Your task to perform on an android device: Open internet settings Image 0: 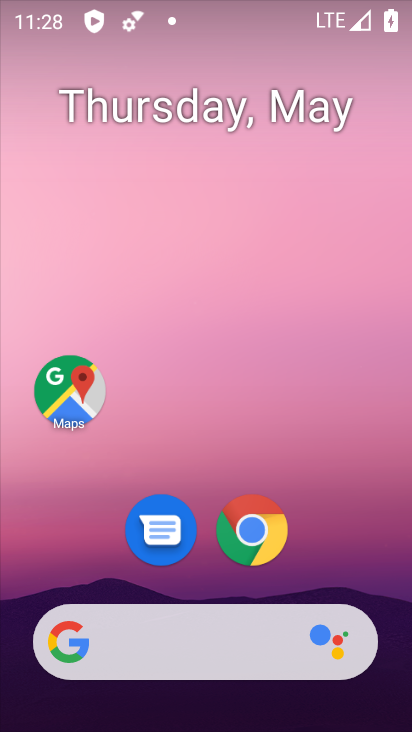
Step 0: drag from (241, 704) to (306, 15)
Your task to perform on an android device: Open internet settings Image 1: 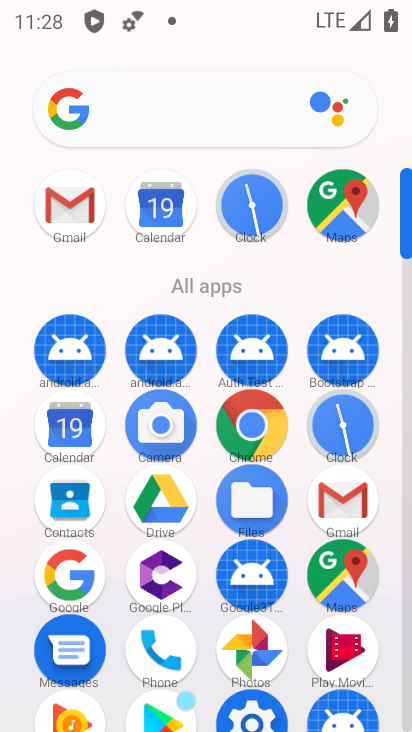
Step 1: drag from (274, 602) to (306, 33)
Your task to perform on an android device: Open internet settings Image 2: 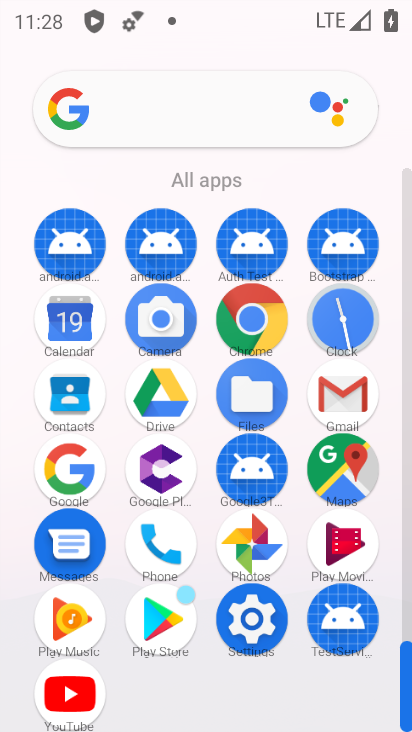
Step 2: click (269, 626)
Your task to perform on an android device: Open internet settings Image 3: 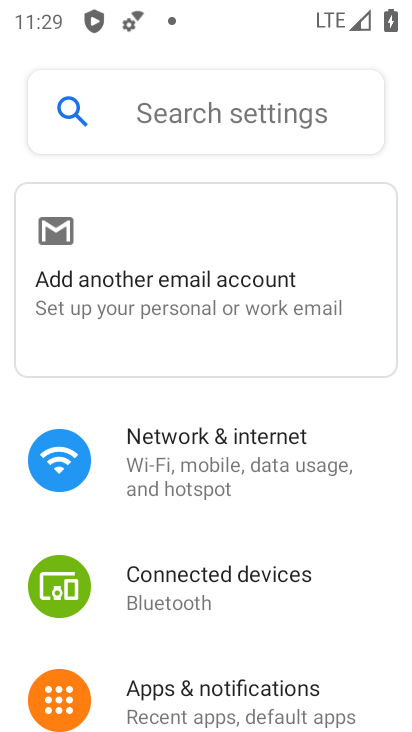
Step 3: click (226, 487)
Your task to perform on an android device: Open internet settings Image 4: 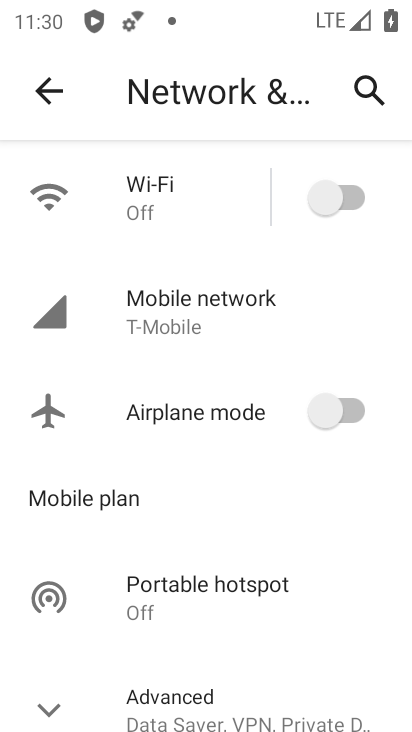
Step 4: task complete